Your task to perform on an android device: turn notification dots on Image 0: 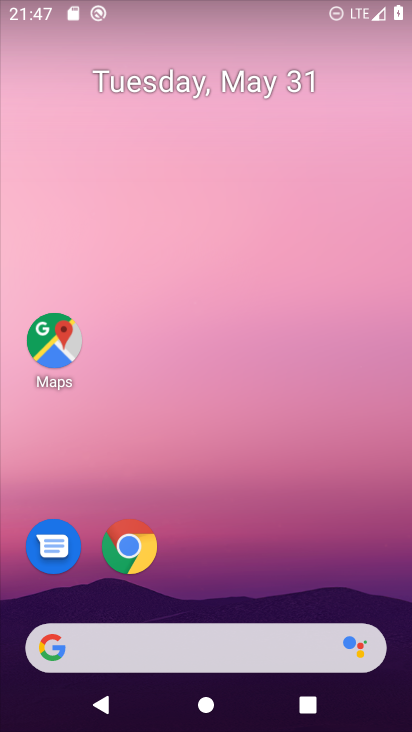
Step 0: drag from (374, 572) to (287, 120)
Your task to perform on an android device: turn notification dots on Image 1: 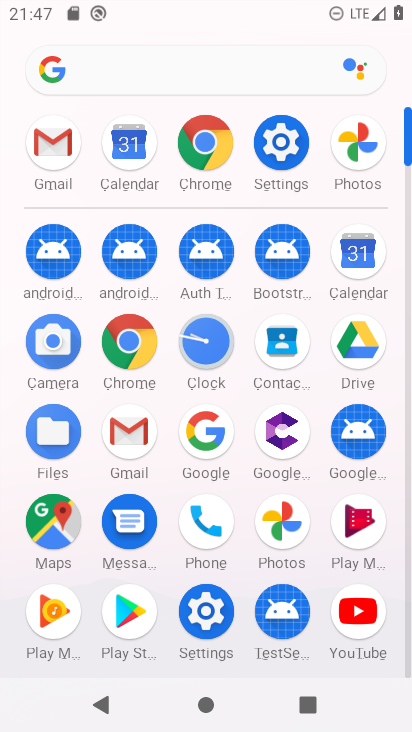
Step 1: click (192, 609)
Your task to perform on an android device: turn notification dots on Image 2: 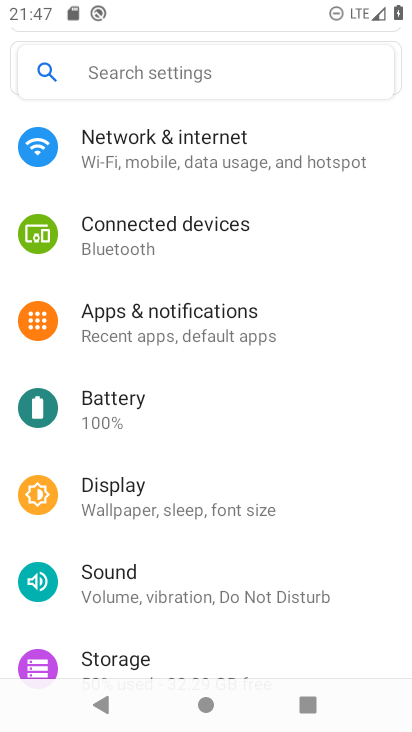
Step 2: drag from (325, 628) to (314, 322)
Your task to perform on an android device: turn notification dots on Image 3: 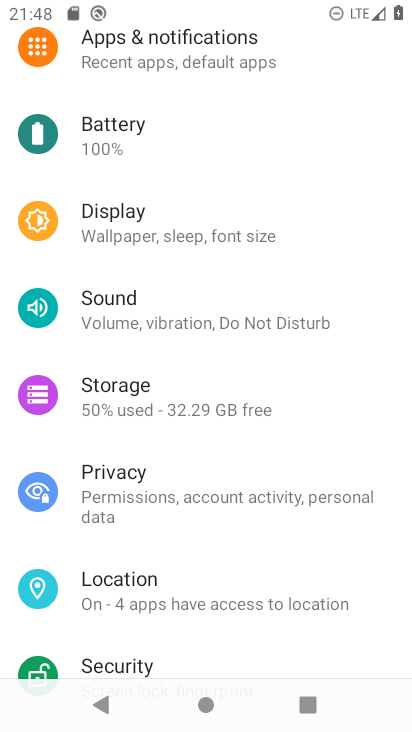
Step 3: click (178, 52)
Your task to perform on an android device: turn notification dots on Image 4: 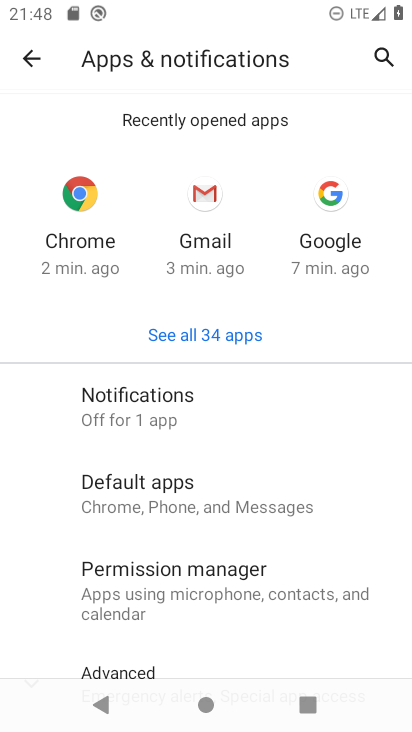
Step 4: drag from (314, 628) to (339, 207)
Your task to perform on an android device: turn notification dots on Image 5: 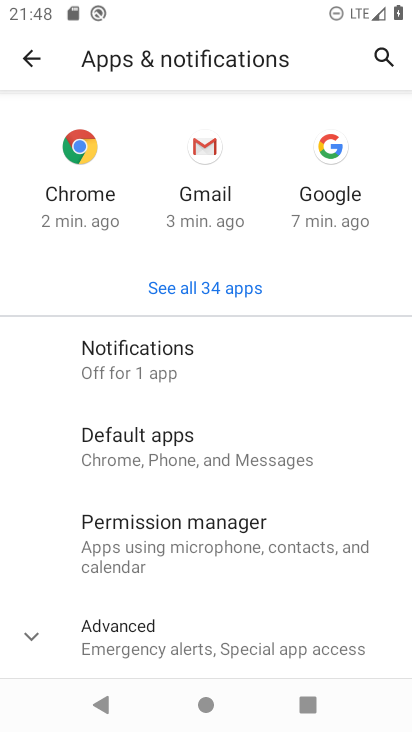
Step 5: click (120, 351)
Your task to perform on an android device: turn notification dots on Image 6: 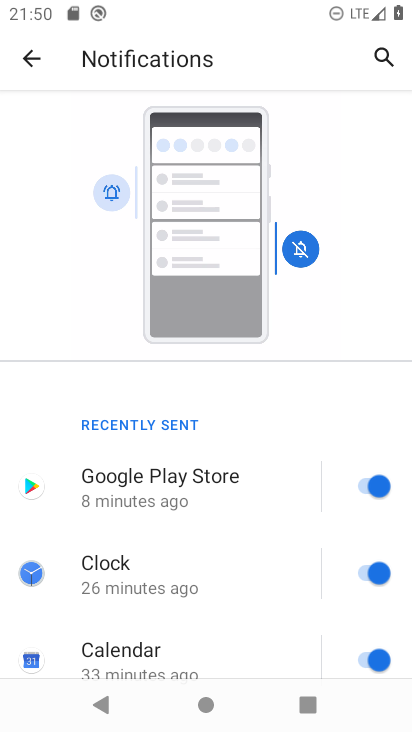
Step 6: drag from (231, 648) to (227, 229)
Your task to perform on an android device: turn notification dots on Image 7: 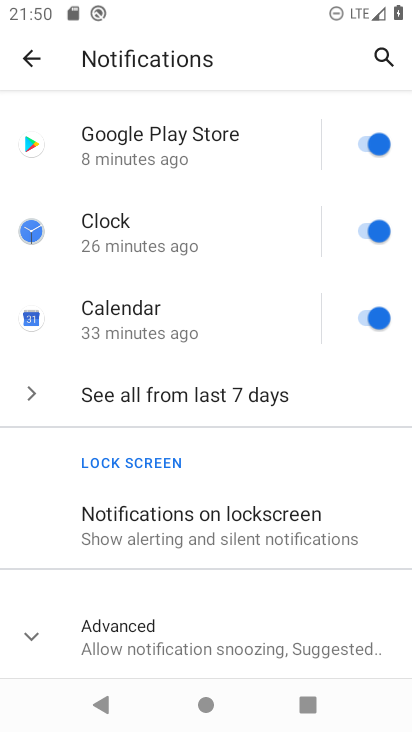
Step 7: drag from (201, 627) to (216, 300)
Your task to perform on an android device: turn notification dots on Image 8: 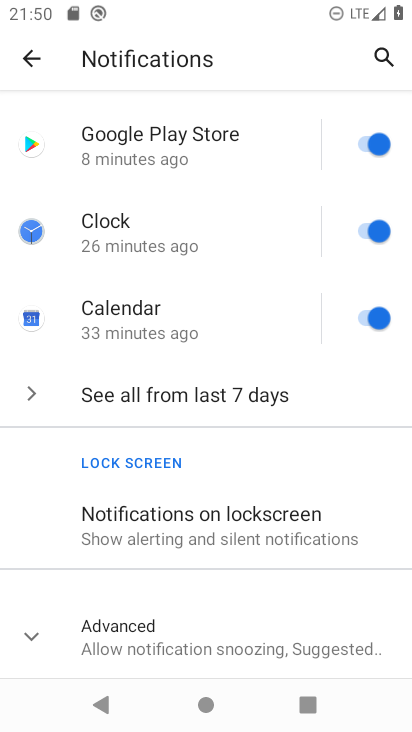
Step 8: click (33, 638)
Your task to perform on an android device: turn notification dots on Image 9: 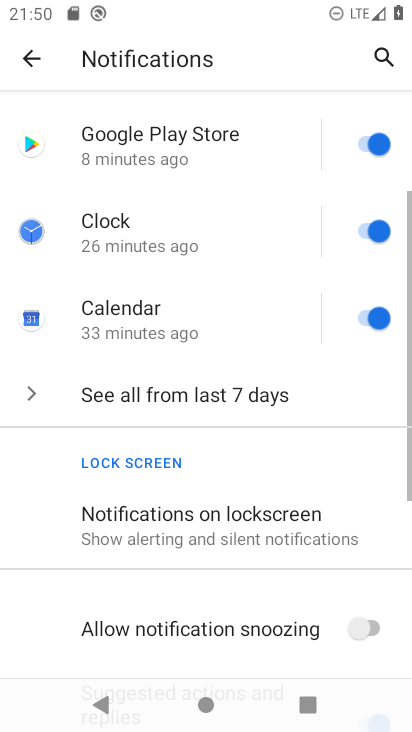
Step 9: task complete